Your task to perform on an android device: turn on sleep mode Image 0: 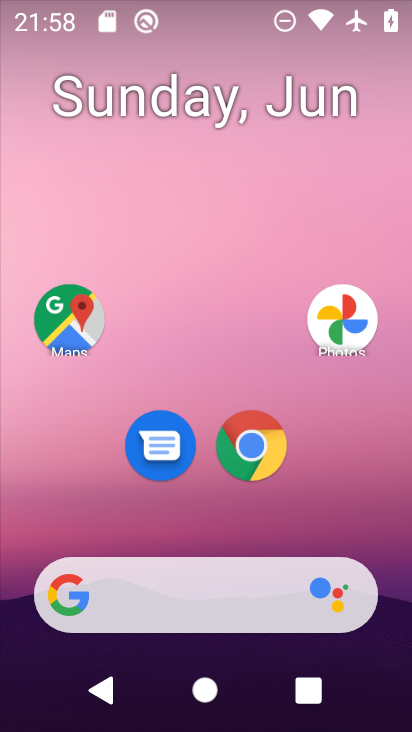
Step 0: drag from (300, 503) to (261, 166)
Your task to perform on an android device: turn on sleep mode Image 1: 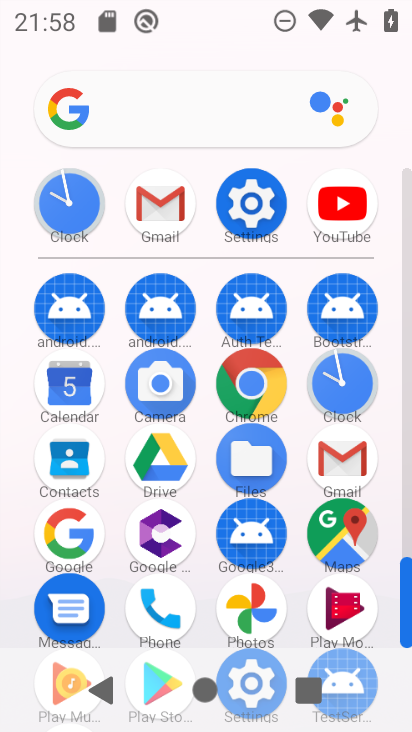
Step 1: click (246, 212)
Your task to perform on an android device: turn on sleep mode Image 2: 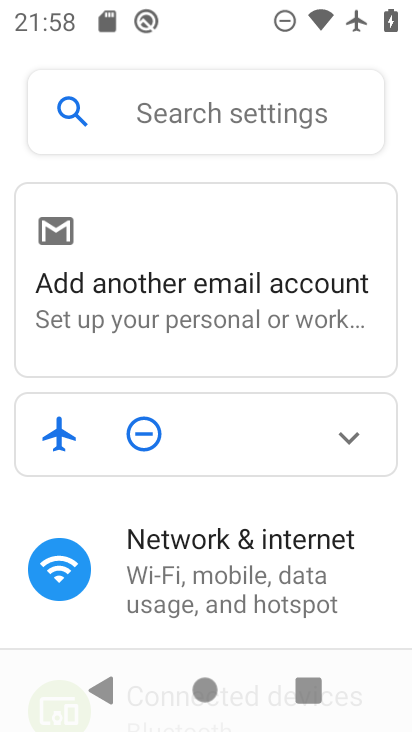
Step 2: drag from (83, 637) to (153, 109)
Your task to perform on an android device: turn on sleep mode Image 3: 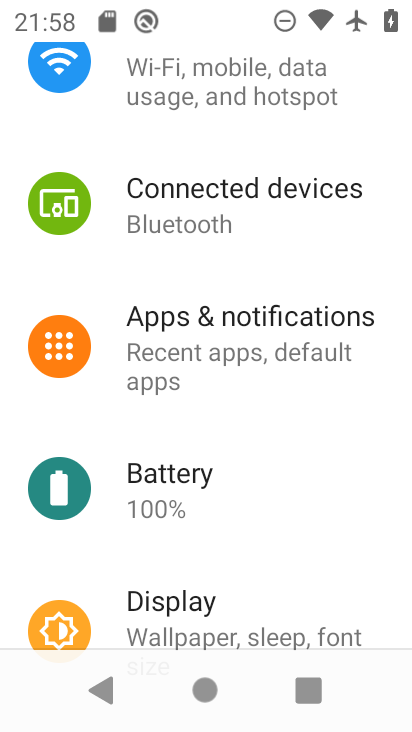
Step 3: click (257, 611)
Your task to perform on an android device: turn on sleep mode Image 4: 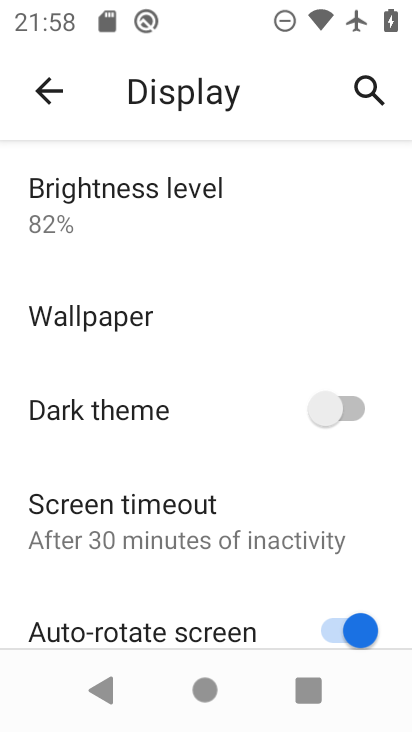
Step 4: task complete